Your task to perform on an android device: What is the recent news? Image 0: 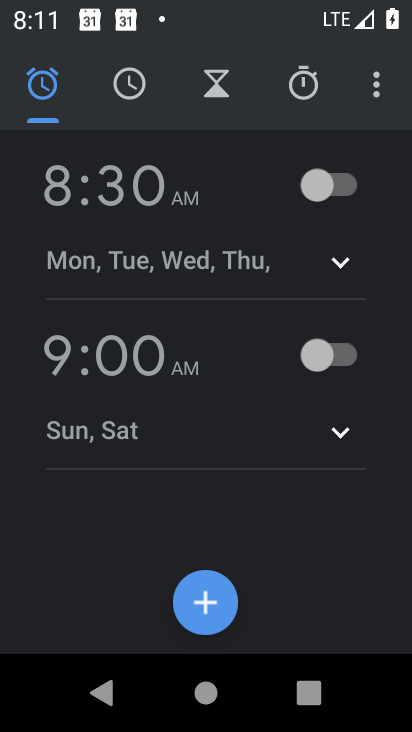
Step 0: press home button
Your task to perform on an android device: What is the recent news? Image 1: 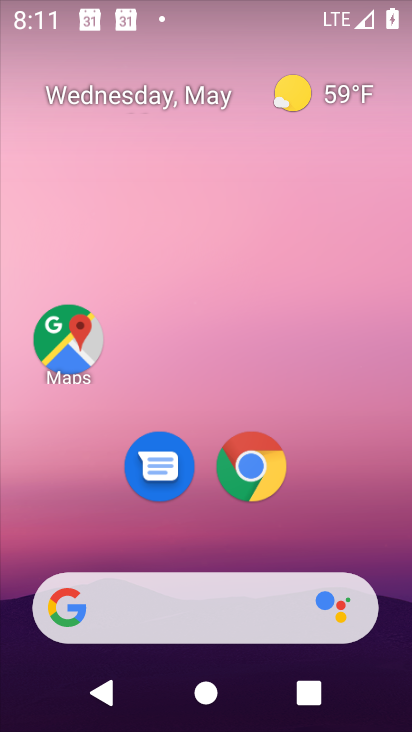
Step 1: click (263, 453)
Your task to perform on an android device: What is the recent news? Image 2: 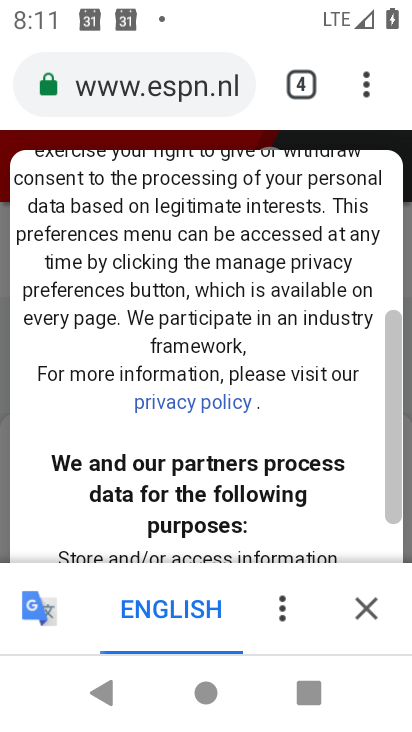
Step 2: click (351, 83)
Your task to perform on an android device: What is the recent news? Image 3: 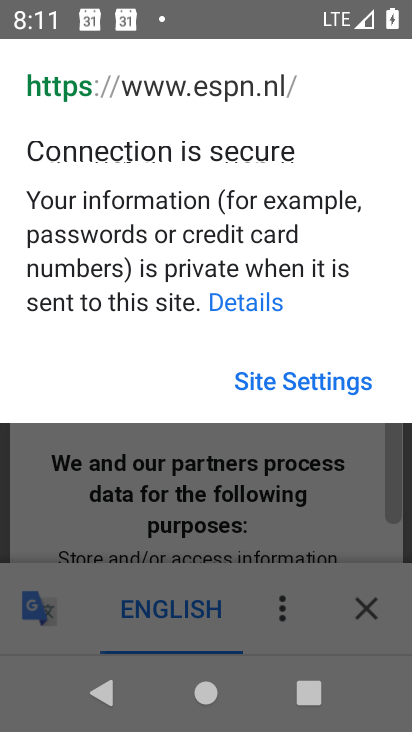
Step 3: press back button
Your task to perform on an android device: What is the recent news? Image 4: 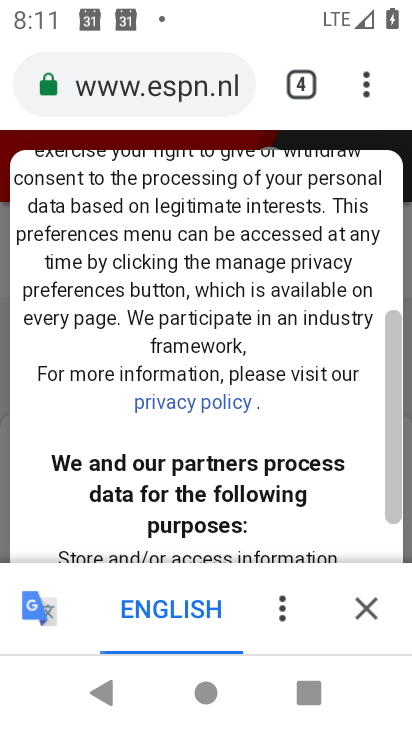
Step 4: click (344, 81)
Your task to perform on an android device: What is the recent news? Image 5: 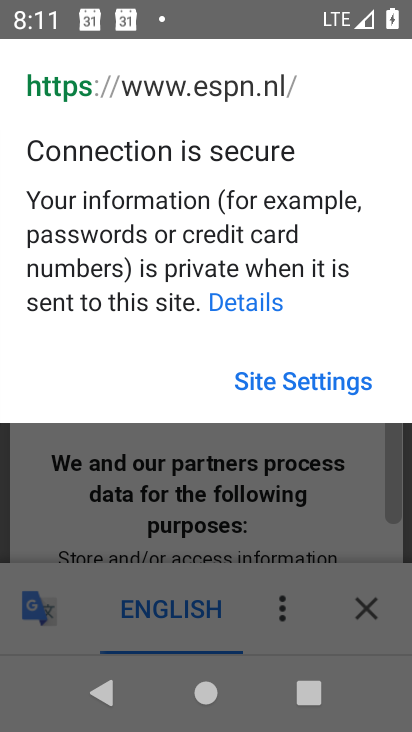
Step 5: press back button
Your task to perform on an android device: What is the recent news? Image 6: 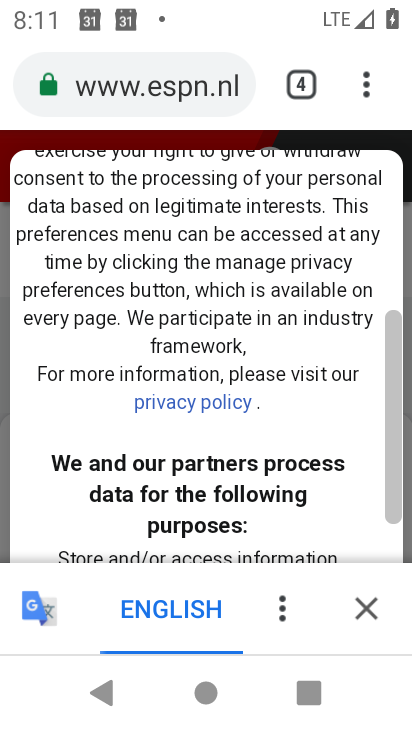
Step 6: click (378, 78)
Your task to perform on an android device: What is the recent news? Image 7: 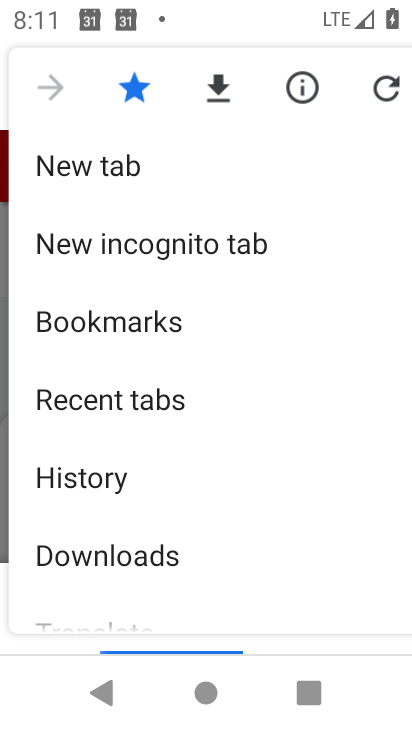
Step 7: click (106, 156)
Your task to perform on an android device: What is the recent news? Image 8: 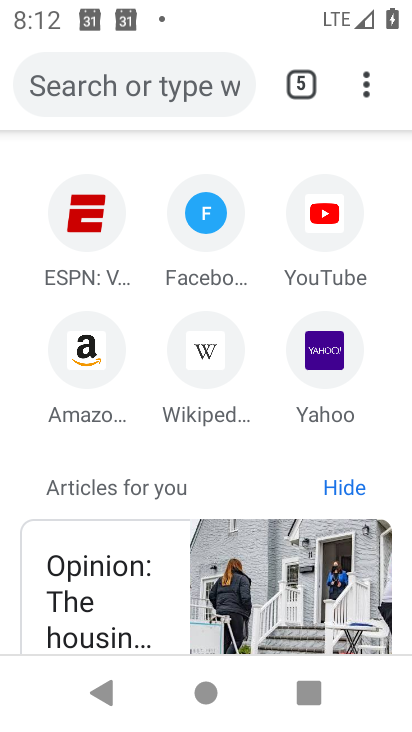
Step 8: click (128, 91)
Your task to perform on an android device: What is the recent news? Image 9: 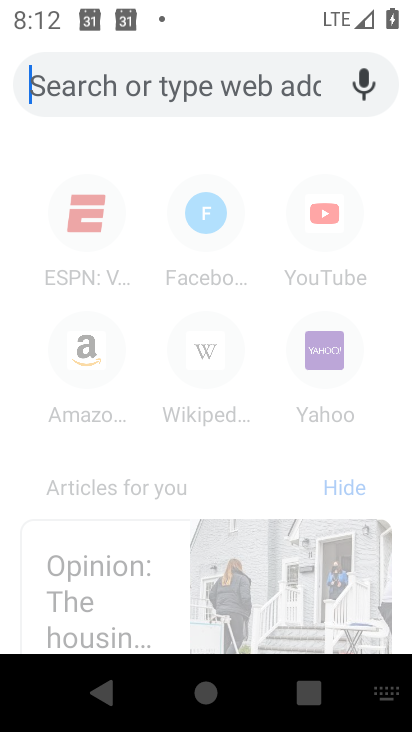
Step 9: click (195, 71)
Your task to perform on an android device: What is the recent news? Image 10: 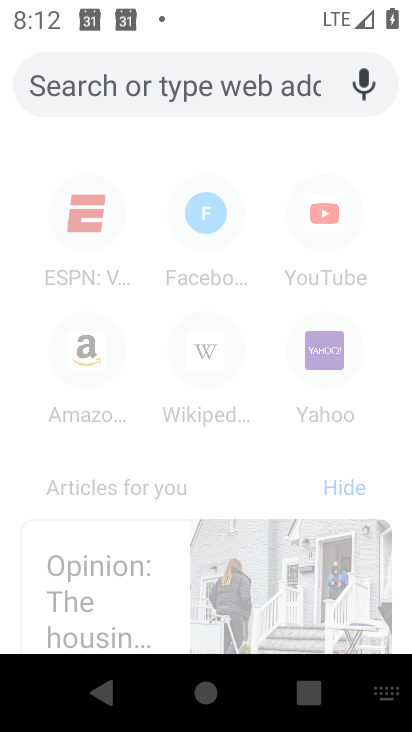
Step 10: type "What is the recent news?"
Your task to perform on an android device: What is the recent news? Image 11: 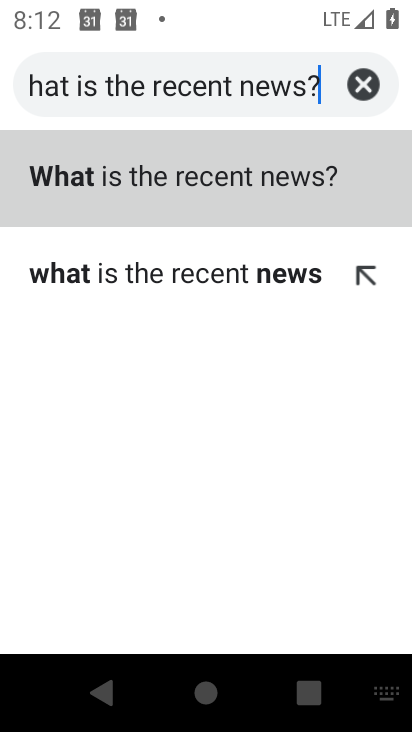
Step 11: click (297, 178)
Your task to perform on an android device: What is the recent news? Image 12: 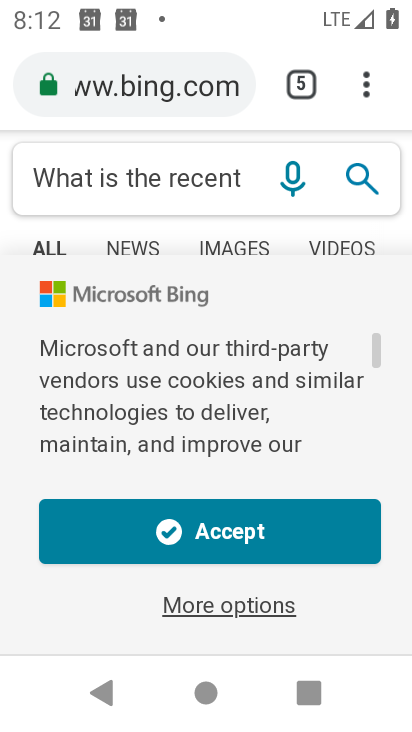
Step 12: task complete